Your task to perform on an android device: turn off sleep mode Image 0: 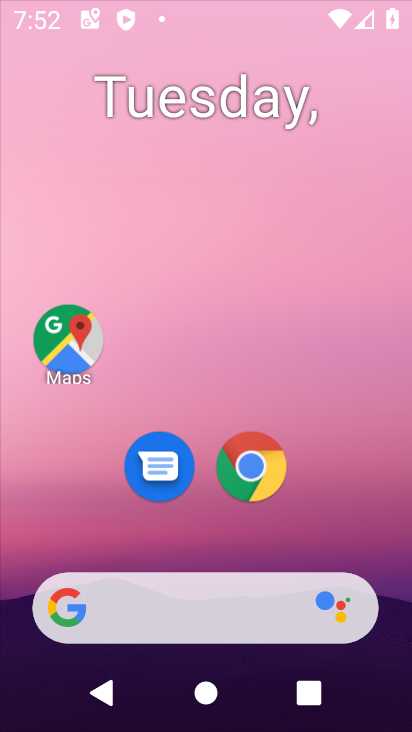
Step 0: press home button
Your task to perform on an android device: turn off sleep mode Image 1: 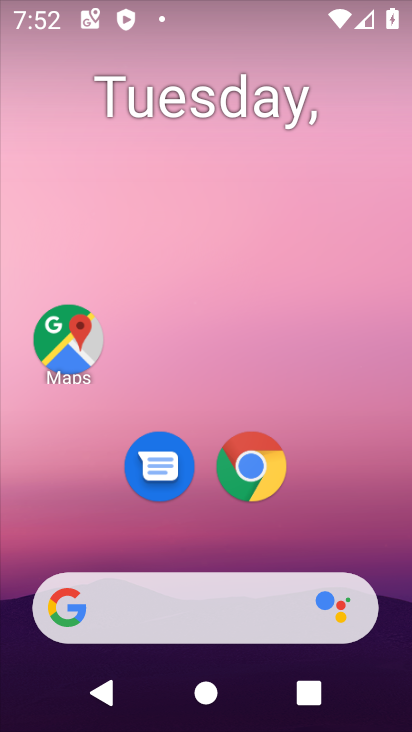
Step 1: drag from (201, 548) to (247, 28)
Your task to perform on an android device: turn off sleep mode Image 2: 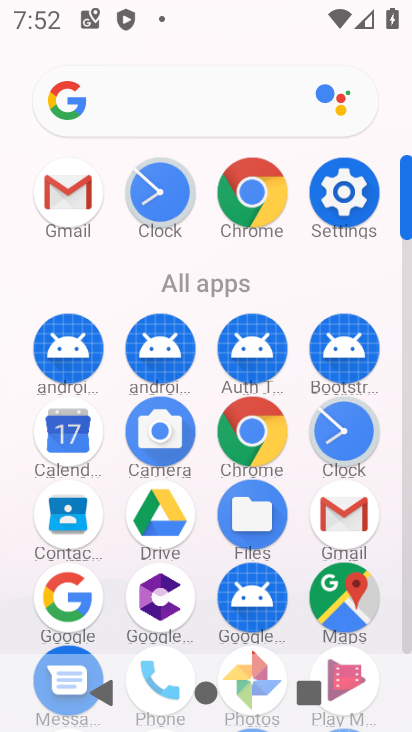
Step 2: click (343, 185)
Your task to perform on an android device: turn off sleep mode Image 3: 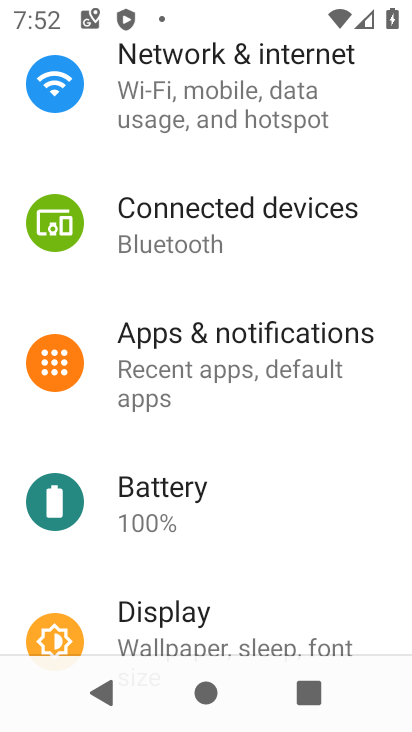
Step 3: click (235, 632)
Your task to perform on an android device: turn off sleep mode Image 4: 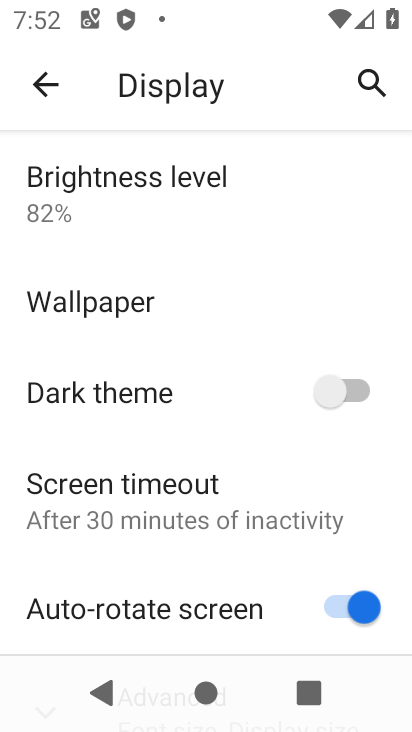
Step 4: drag from (220, 580) to (239, 109)
Your task to perform on an android device: turn off sleep mode Image 5: 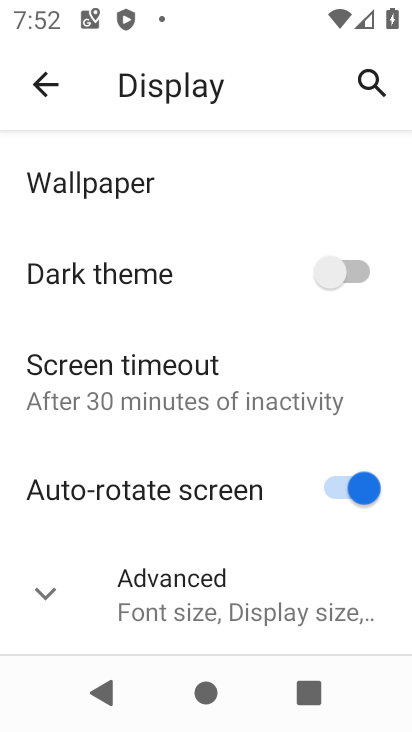
Step 5: click (40, 593)
Your task to perform on an android device: turn off sleep mode Image 6: 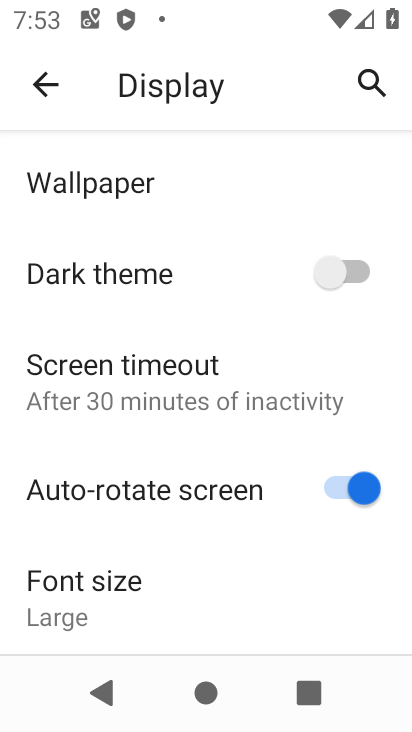
Step 6: task complete